Your task to perform on an android device: toggle sleep mode Image 0: 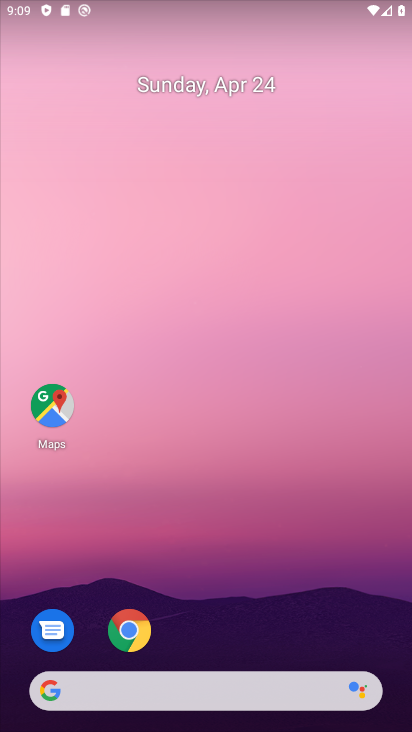
Step 0: drag from (227, 446) to (286, 13)
Your task to perform on an android device: toggle sleep mode Image 1: 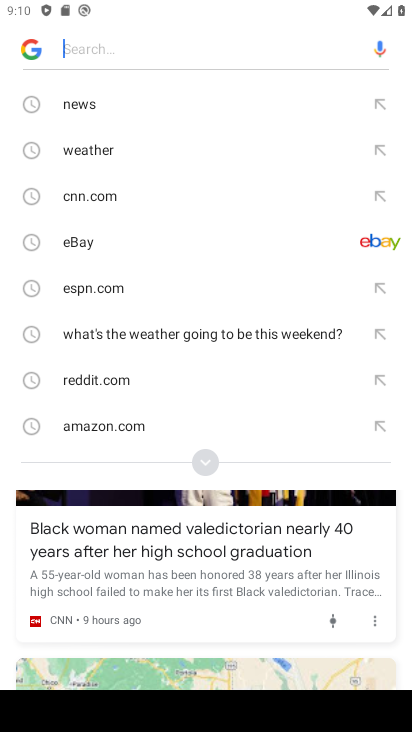
Step 1: press home button
Your task to perform on an android device: toggle sleep mode Image 2: 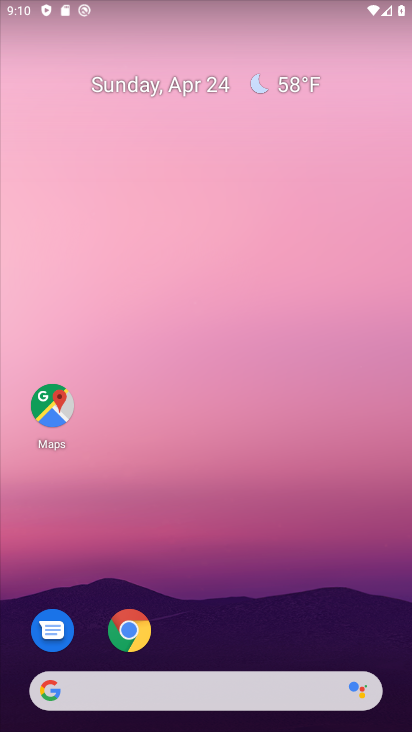
Step 2: drag from (196, 599) to (249, 232)
Your task to perform on an android device: toggle sleep mode Image 3: 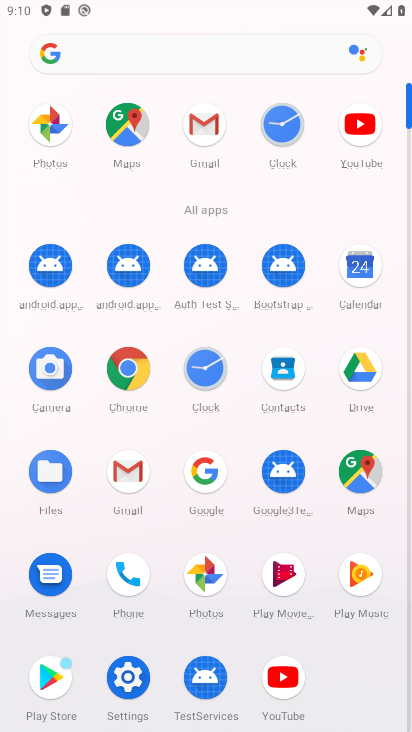
Step 3: click (120, 686)
Your task to perform on an android device: toggle sleep mode Image 4: 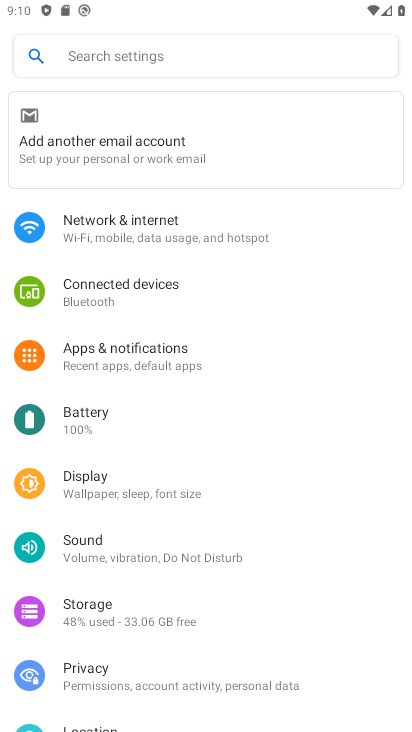
Step 4: drag from (62, 555) to (116, 329)
Your task to perform on an android device: toggle sleep mode Image 5: 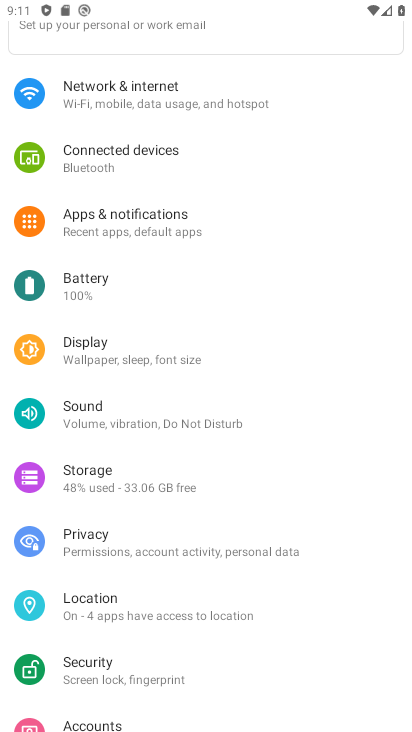
Step 5: drag from (134, 538) to (161, 208)
Your task to perform on an android device: toggle sleep mode Image 6: 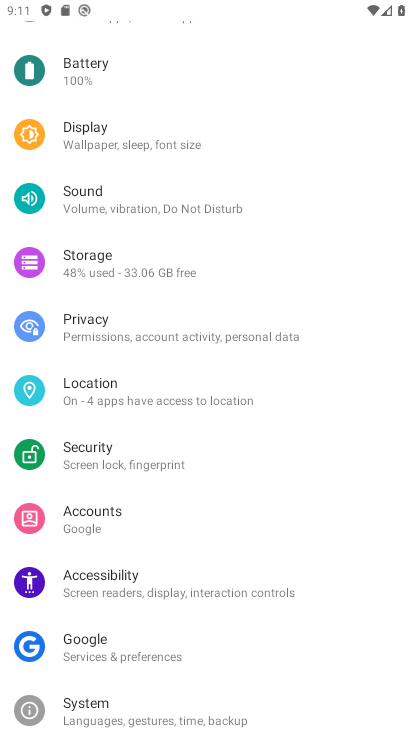
Step 6: drag from (151, 351) to (144, 575)
Your task to perform on an android device: toggle sleep mode Image 7: 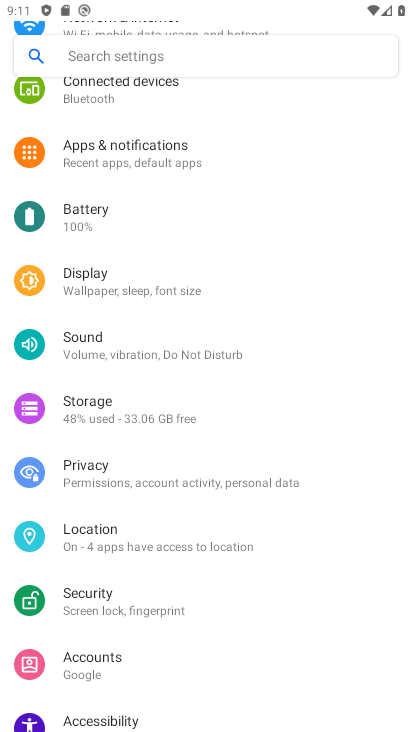
Step 7: click (143, 295)
Your task to perform on an android device: toggle sleep mode Image 8: 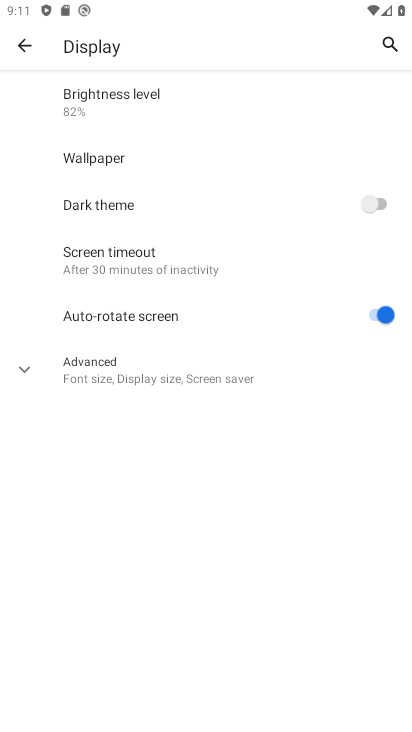
Step 8: task complete